Your task to perform on an android device: Search for pizza restaurants on Maps Image 0: 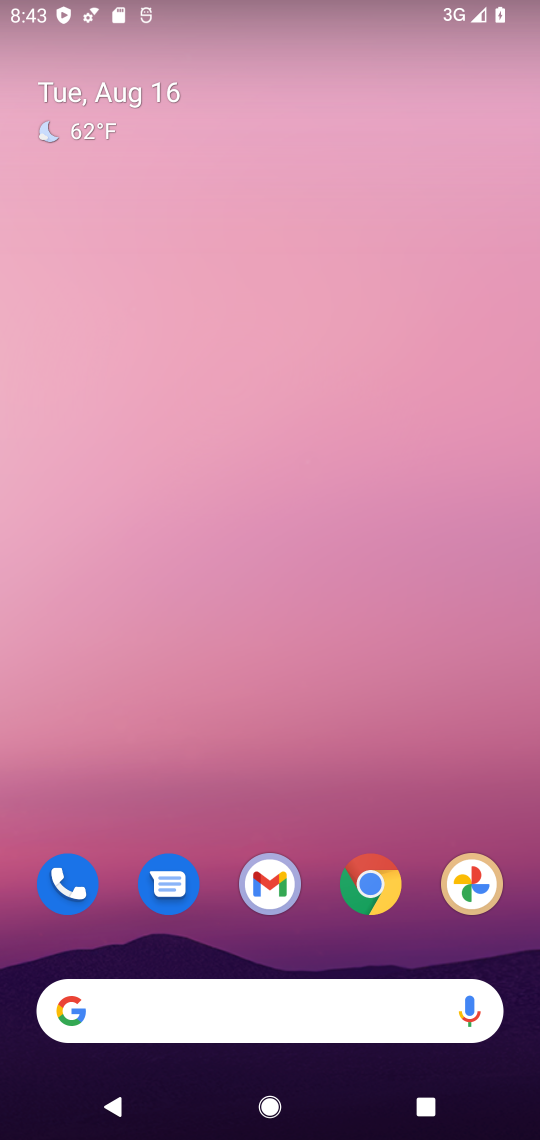
Step 0: drag from (420, 947) to (403, 241)
Your task to perform on an android device: Search for pizza restaurants on Maps Image 1: 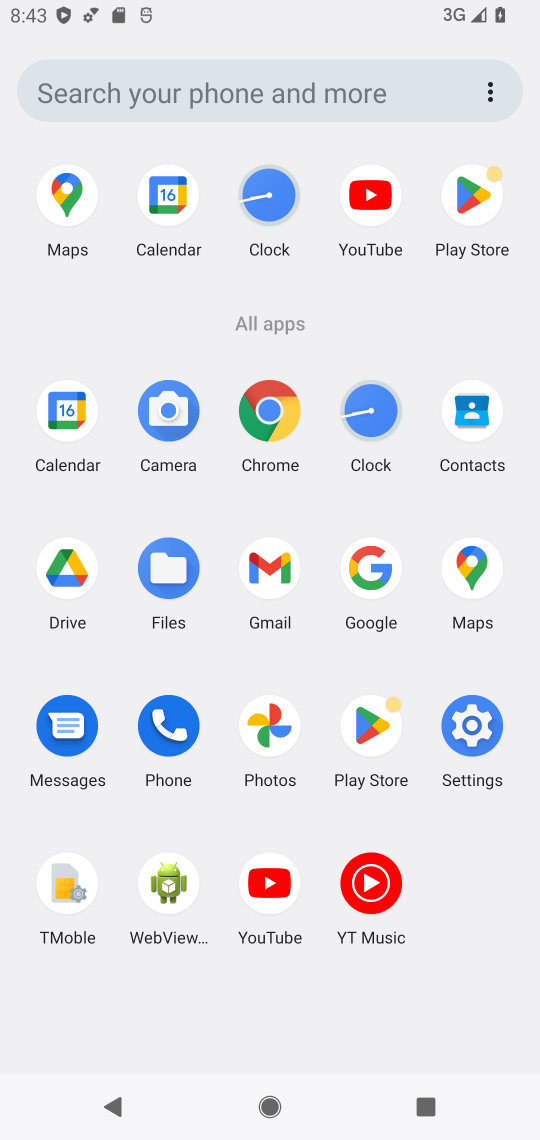
Step 1: click (467, 561)
Your task to perform on an android device: Search for pizza restaurants on Maps Image 2: 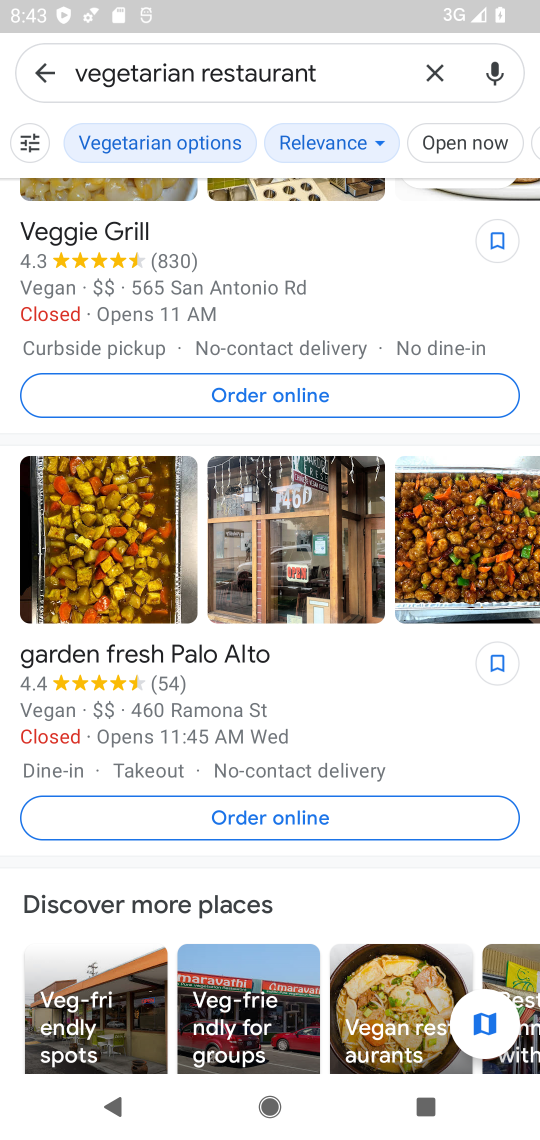
Step 2: click (432, 70)
Your task to perform on an android device: Search for pizza restaurants on Maps Image 3: 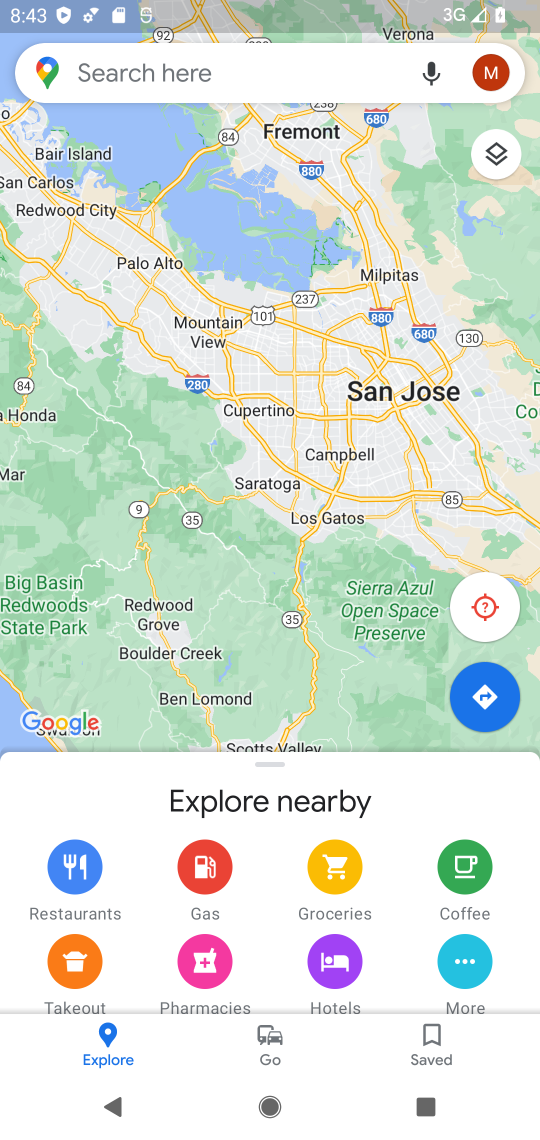
Step 3: click (134, 71)
Your task to perform on an android device: Search for pizza restaurants on Maps Image 4: 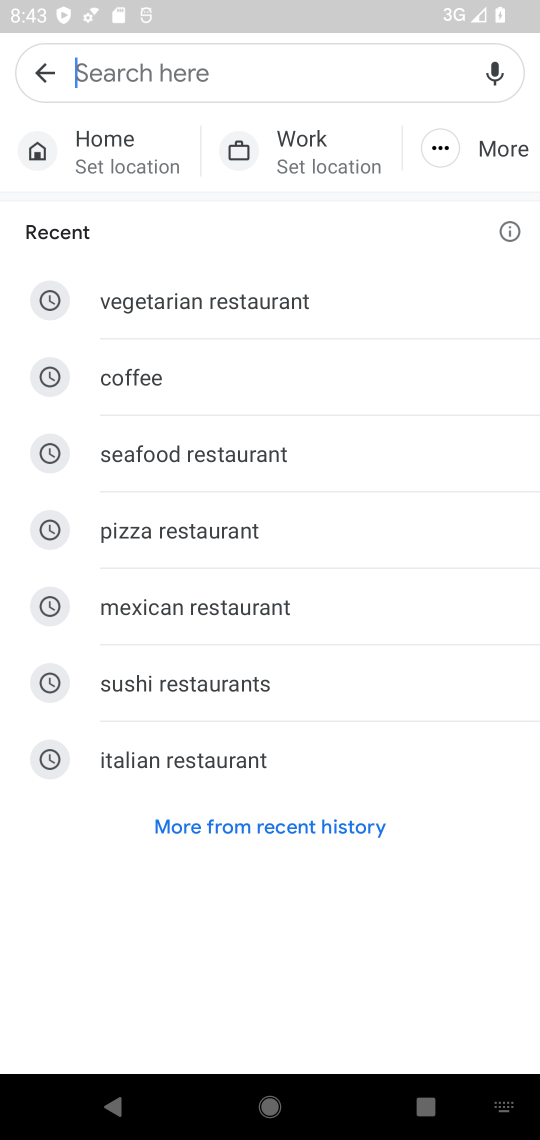
Step 4: type "pizza restaurants"
Your task to perform on an android device: Search for pizza restaurants on Maps Image 5: 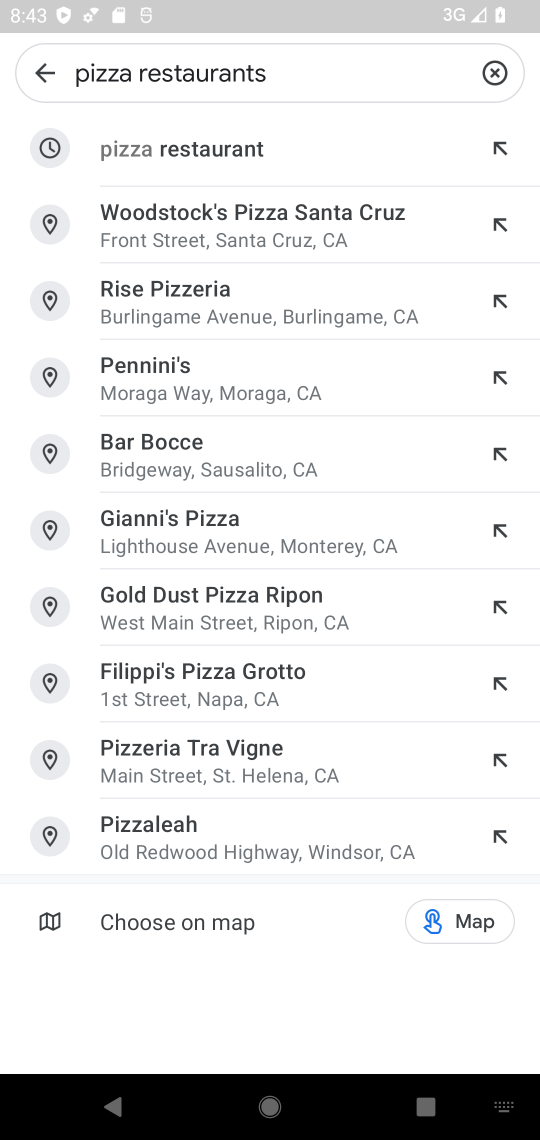
Step 5: click (189, 142)
Your task to perform on an android device: Search for pizza restaurants on Maps Image 6: 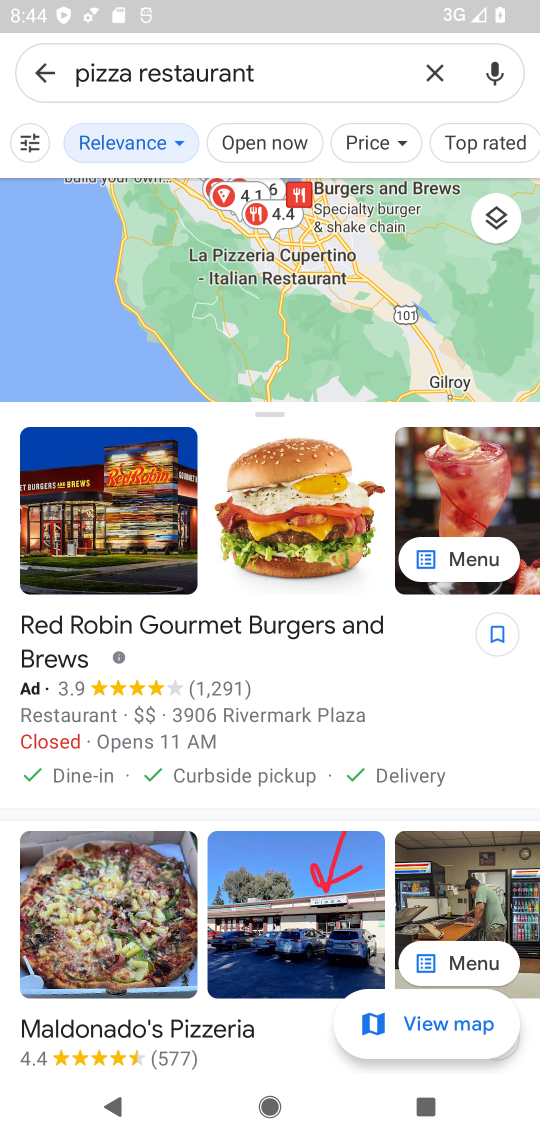
Step 6: task complete